Your task to perform on an android device: Go to battery settings Image 0: 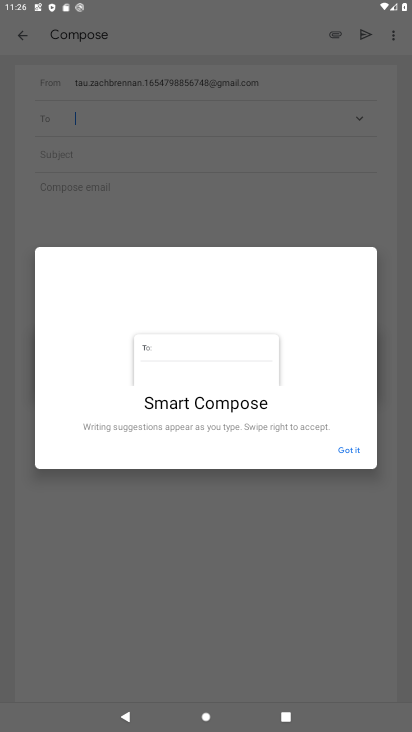
Step 0: press home button
Your task to perform on an android device: Go to battery settings Image 1: 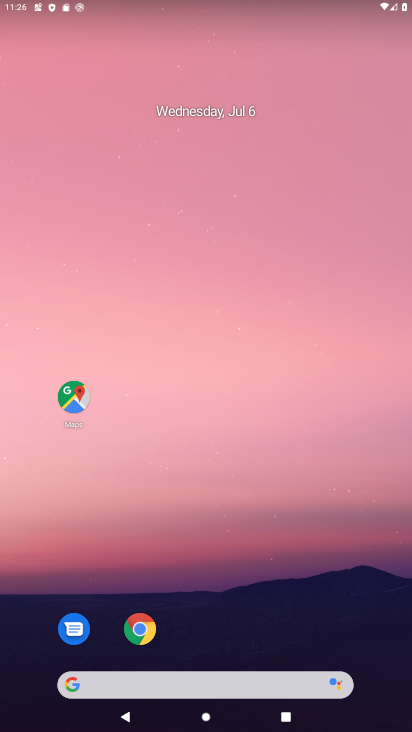
Step 1: drag from (231, 594) to (150, 139)
Your task to perform on an android device: Go to battery settings Image 2: 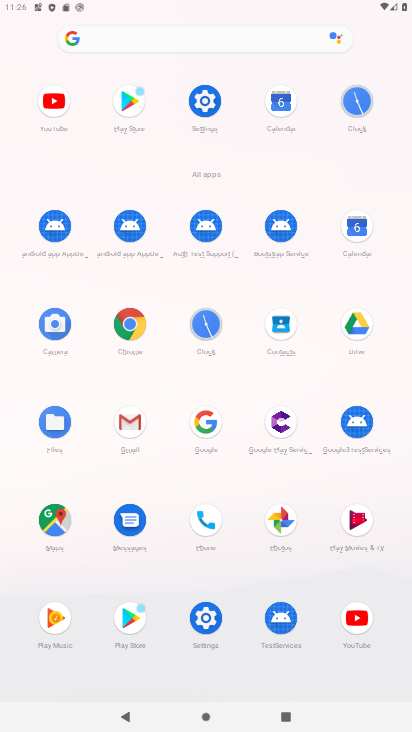
Step 2: click (207, 100)
Your task to perform on an android device: Go to battery settings Image 3: 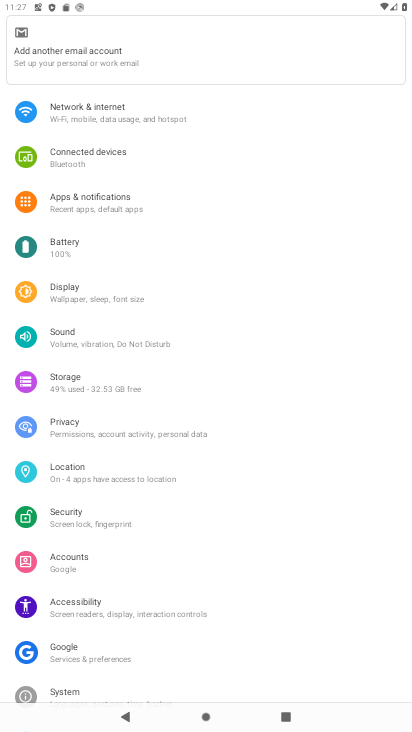
Step 3: click (71, 245)
Your task to perform on an android device: Go to battery settings Image 4: 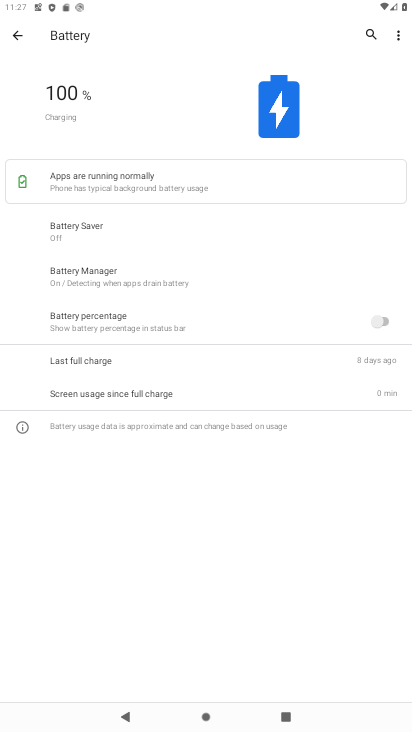
Step 4: task complete